Your task to perform on an android device: Open location settings Image 0: 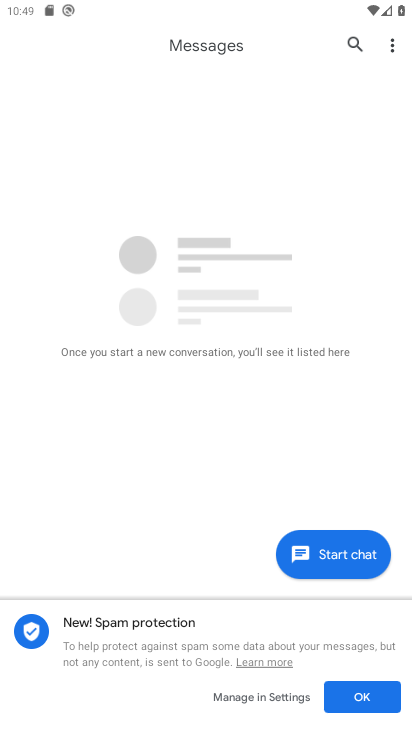
Step 0: press home button
Your task to perform on an android device: Open location settings Image 1: 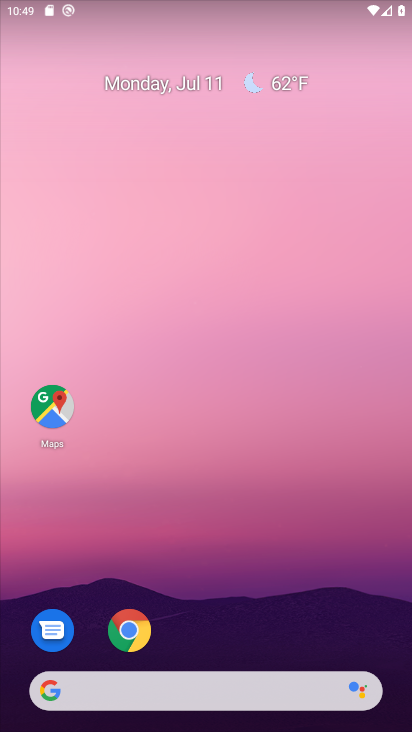
Step 1: drag from (212, 587) to (212, 45)
Your task to perform on an android device: Open location settings Image 2: 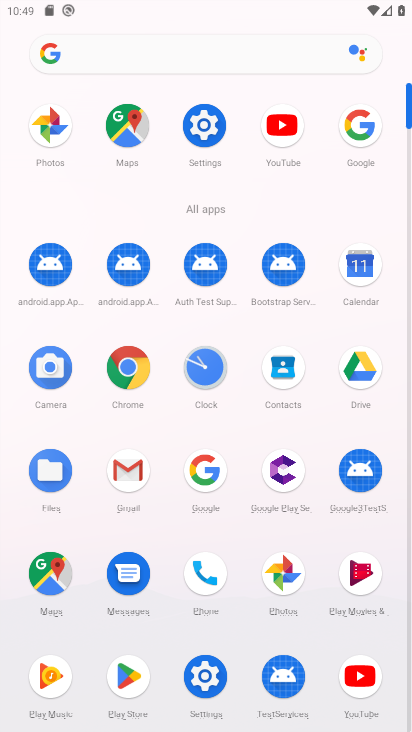
Step 2: click (213, 131)
Your task to perform on an android device: Open location settings Image 3: 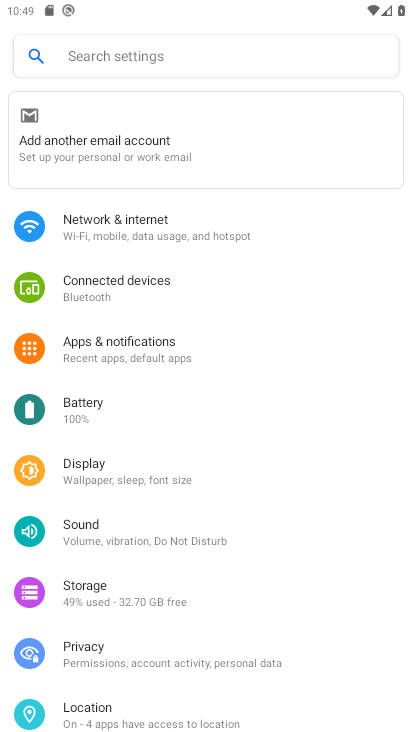
Step 3: drag from (246, 510) to (262, 280)
Your task to perform on an android device: Open location settings Image 4: 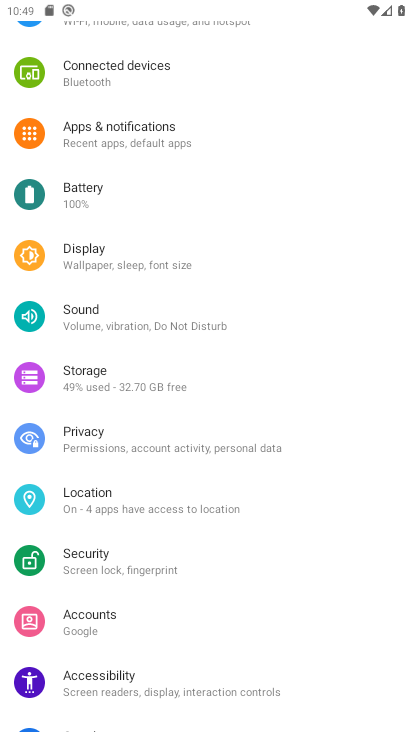
Step 4: click (127, 506)
Your task to perform on an android device: Open location settings Image 5: 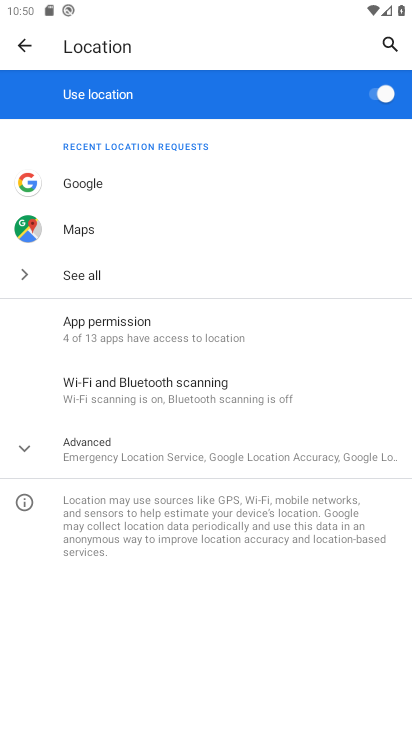
Step 5: task complete